Your task to perform on an android device: check battery use Image 0: 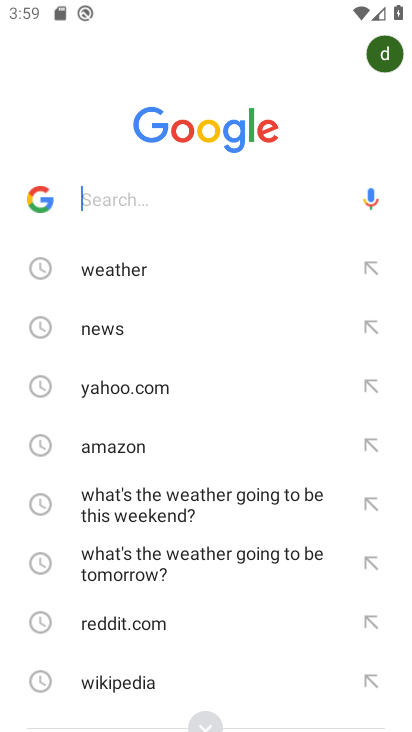
Step 0: drag from (340, 657) to (325, 123)
Your task to perform on an android device: check battery use Image 1: 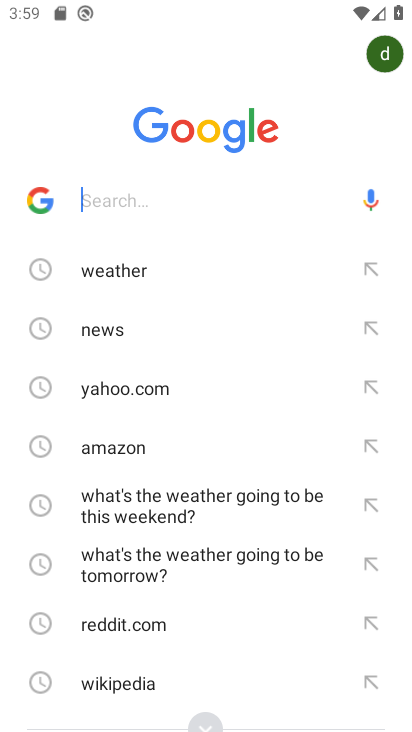
Step 1: press home button
Your task to perform on an android device: check battery use Image 2: 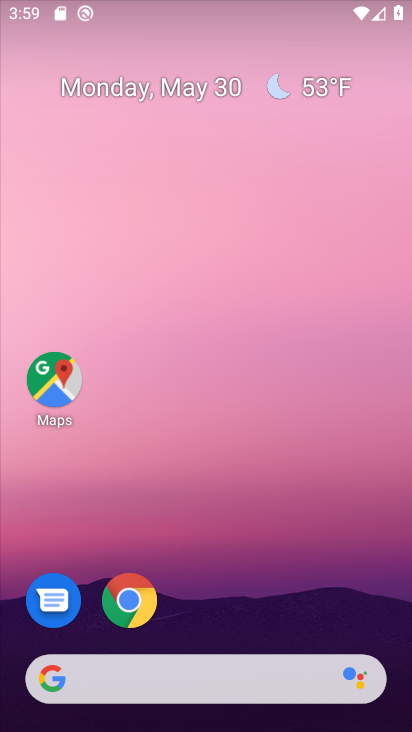
Step 2: drag from (291, 548) to (198, 12)
Your task to perform on an android device: check battery use Image 3: 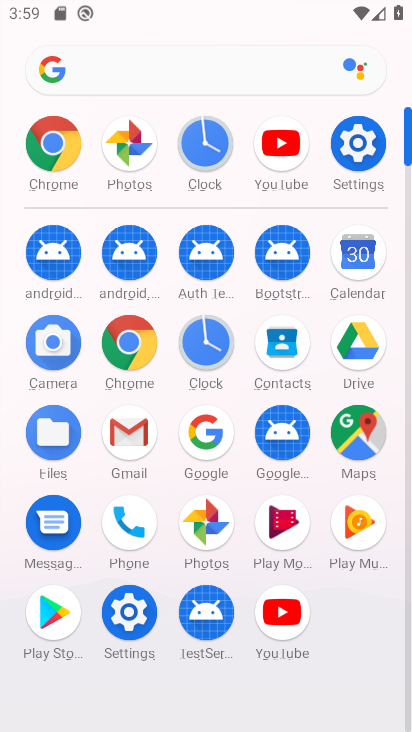
Step 3: click (356, 143)
Your task to perform on an android device: check battery use Image 4: 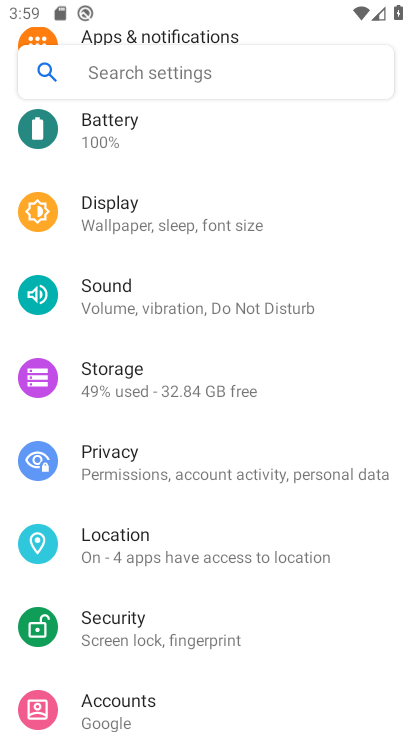
Step 4: drag from (230, 216) to (349, 656)
Your task to perform on an android device: check battery use Image 5: 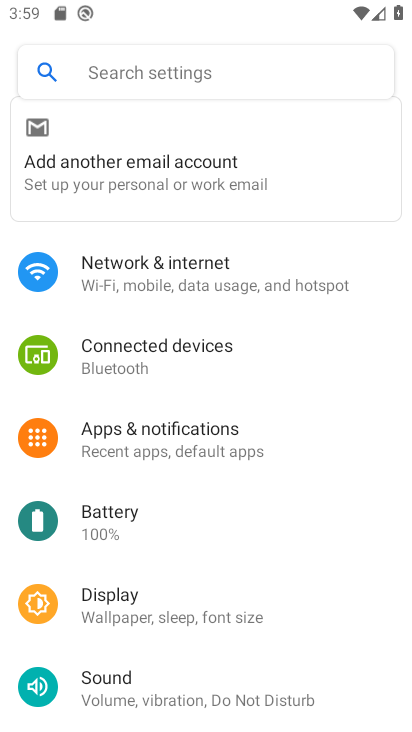
Step 5: click (136, 527)
Your task to perform on an android device: check battery use Image 6: 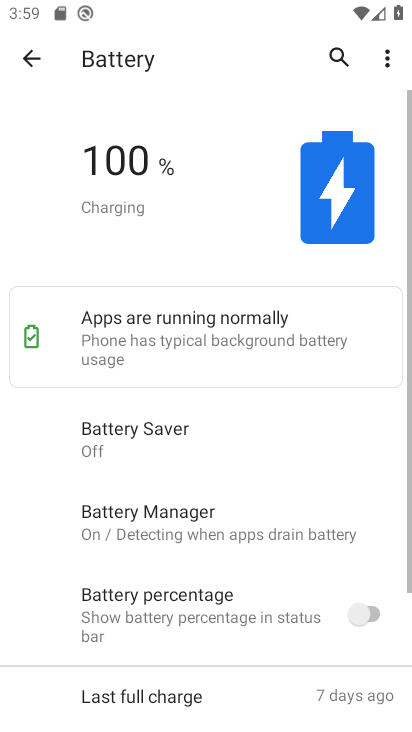
Step 6: task complete